Your task to perform on an android device: Open wifi settings Image 0: 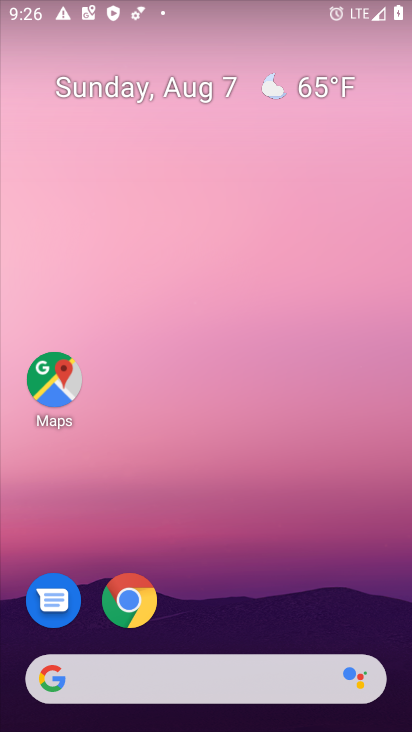
Step 0: drag from (197, 539) to (190, 13)
Your task to perform on an android device: Open wifi settings Image 1: 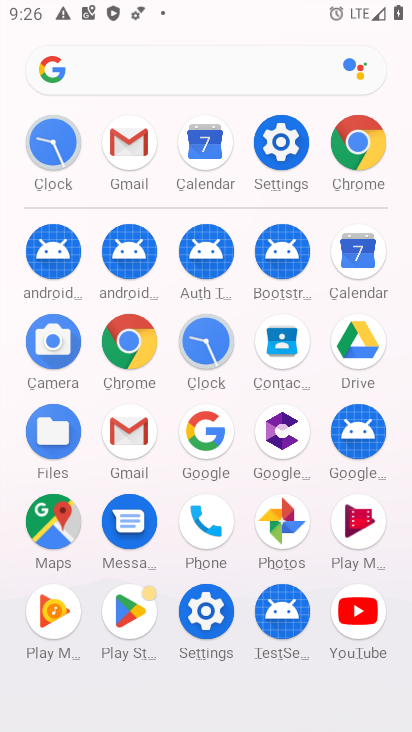
Step 1: click (278, 142)
Your task to perform on an android device: Open wifi settings Image 2: 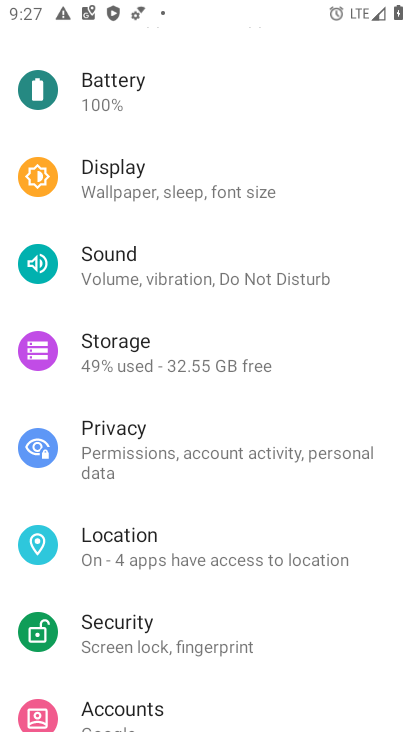
Step 2: drag from (200, 470) to (168, 638)
Your task to perform on an android device: Open wifi settings Image 3: 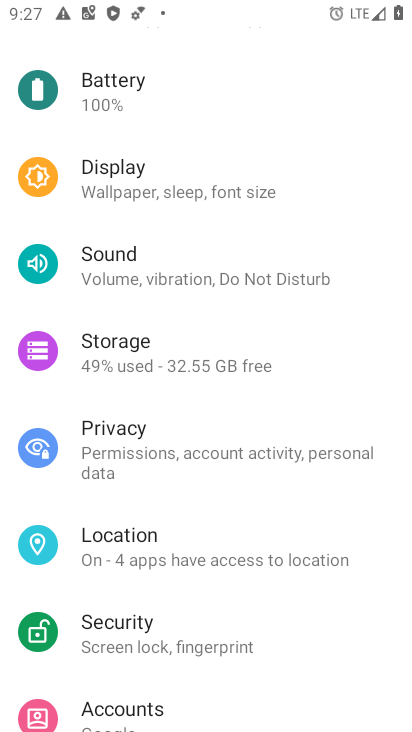
Step 3: drag from (211, 202) to (206, 636)
Your task to perform on an android device: Open wifi settings Image 4: 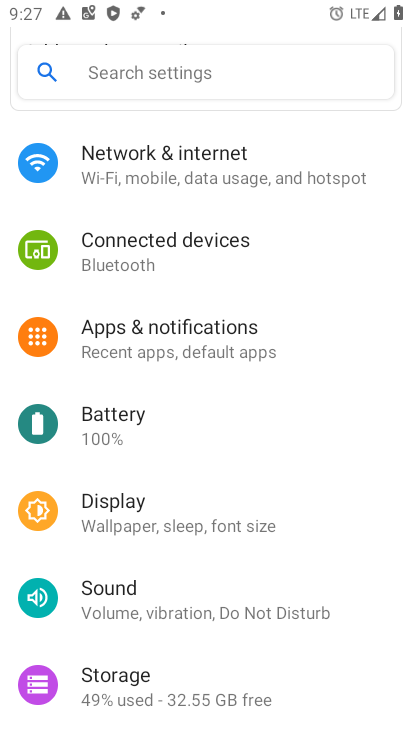
Step 4: click (224, 170)
Your task to perform on an android device: Open wifi settings Image 5: 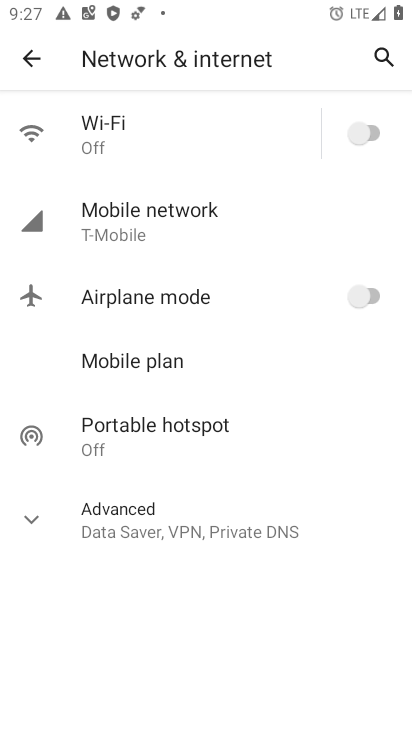
Step 5: click (119, 132)
Your task to perform on an android device: Open wifi settings Image 6: 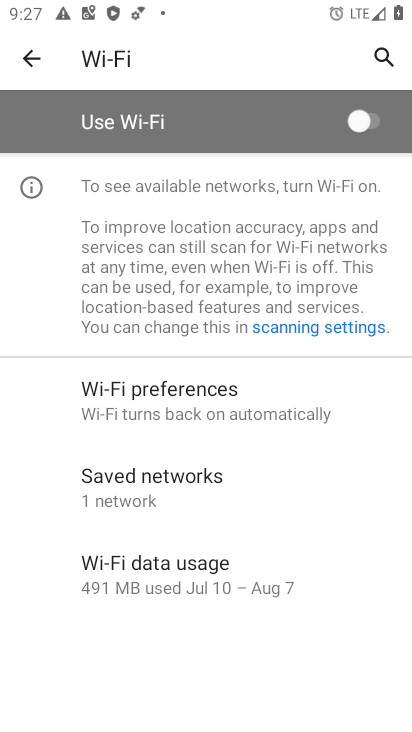
Step 6: task complete